Your task to perform on an android device: install app "Booking.com: Hotels and more" Image 0: 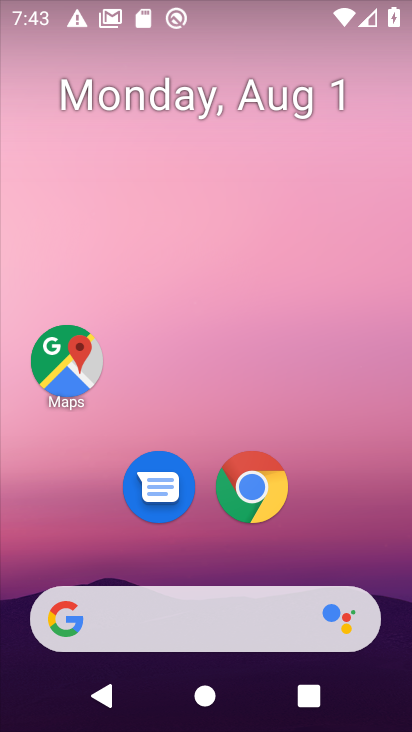
Step 0: drag from (359, 525) to (358, 105)
Your task to perform on an android device: install app "Booking.com: Hotels and more" Image 1: 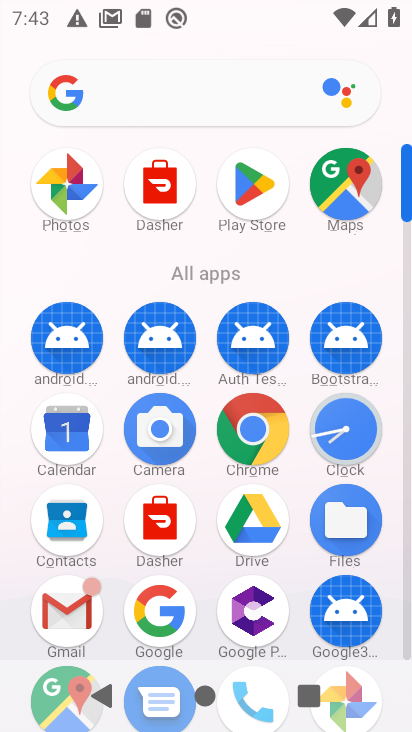
Step 1: click (248, 193)
Your task to perform on an android device: install app "Booking.com: Hotels and more" Image 2: 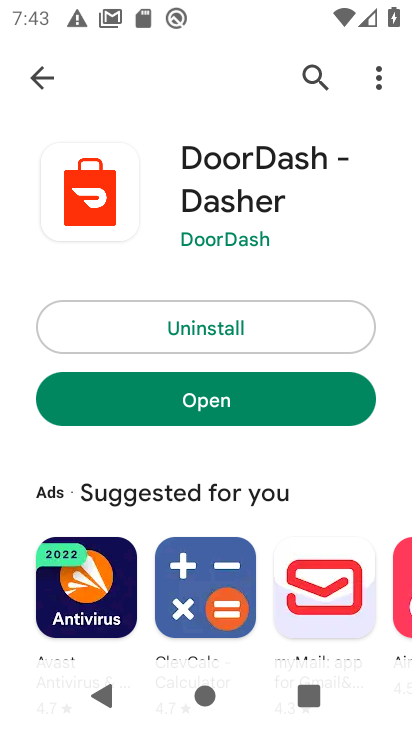
Step 2: click (311, 75)
Your task to perform on an android device: install app "Booking.com: Hotels and more" Image 3: 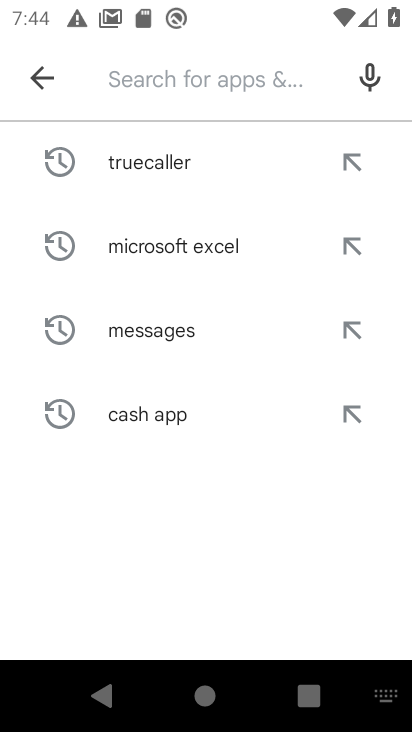
Step 3: type "booking.comhotels and more"
Your task to perform on an android device: install app "Booking.com: Hotels and more" Image 4: 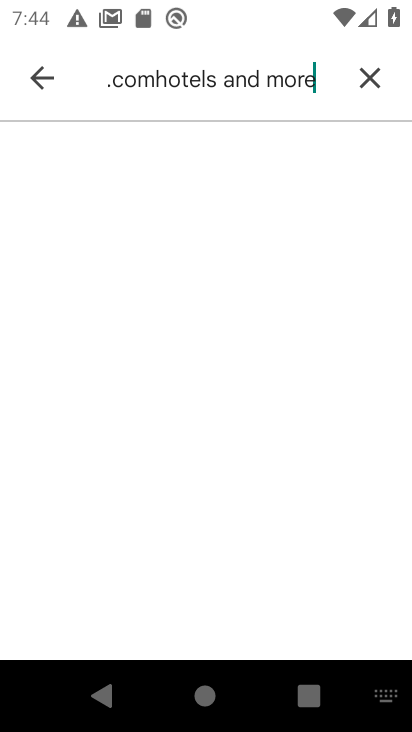
Step 4: click (153, 77)
Your task to perform on an android device: install app "Booking.com: Hotels and more" Image 5: 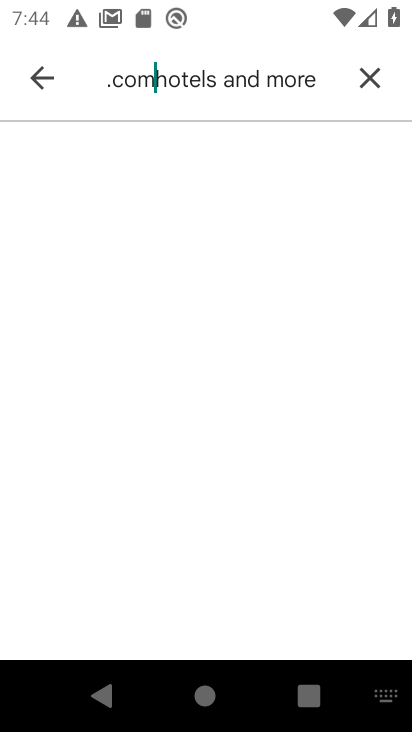
Step 5: task complete